Your task to perform on an android device: Go to Wikipedia Image 0: 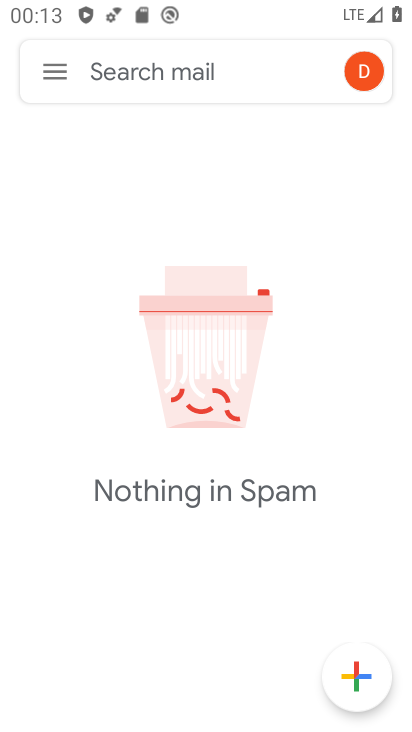
Step 0: press home button
Your task to perform on an android device: Go to Wikipedia Image 1: 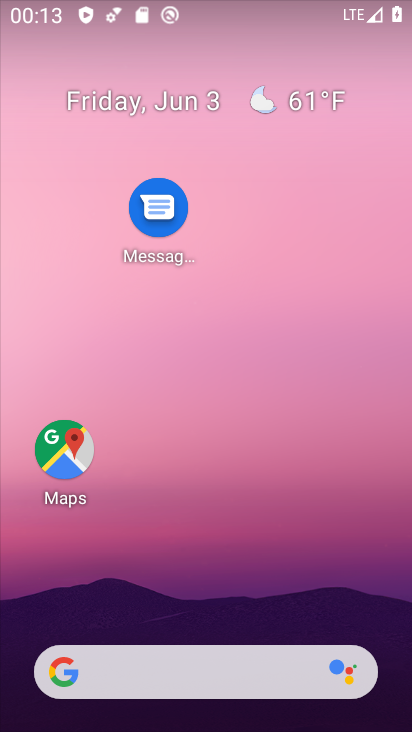
Step 1: drag from (229, 611) to (124, 6)
Your task to perform on an android device: Go to Wikipedia Image 2: 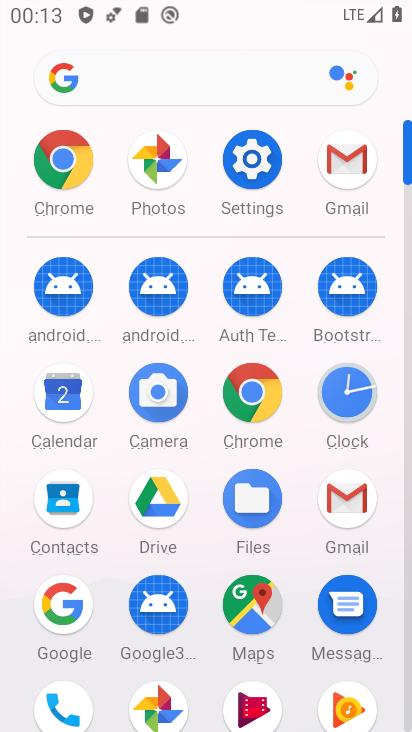
Step 2: click (243, 396)
Your task to perform on an android device: Go to Wikipedia Image 3: 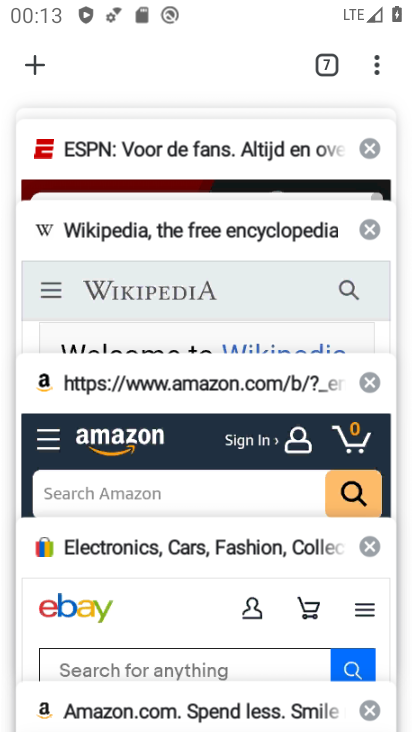
Step 3: click (27, 73)
Your task to perform on an android device: Go to Wikipedia Image 4: 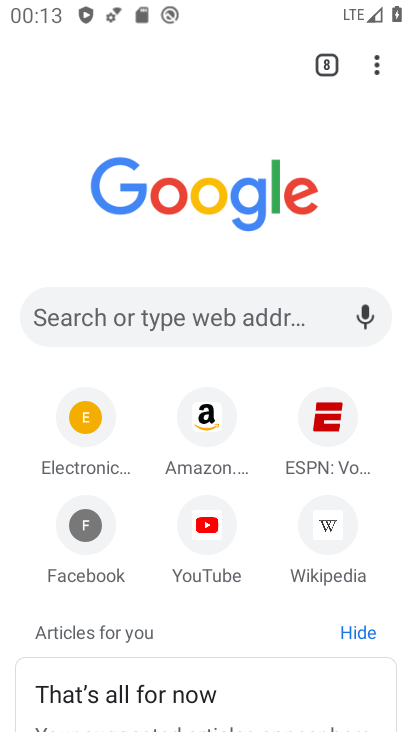
Step 4: click (317, 525)
Your task to perform on an android device: Go to Wikipedia Image 5: 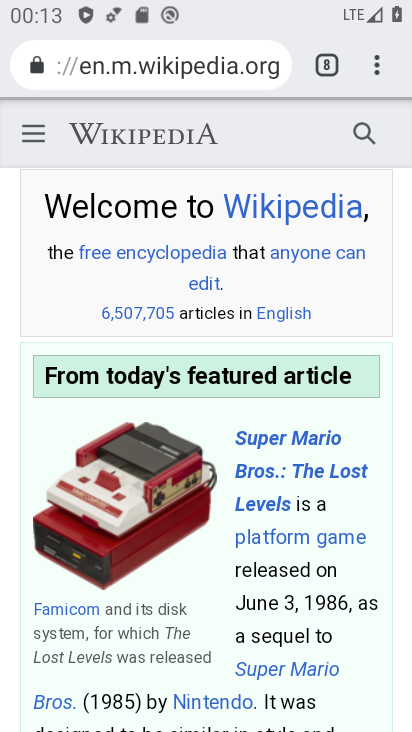
Step 5: task complete